Your task to perform on an android device: turn on sleep mode Image 0: 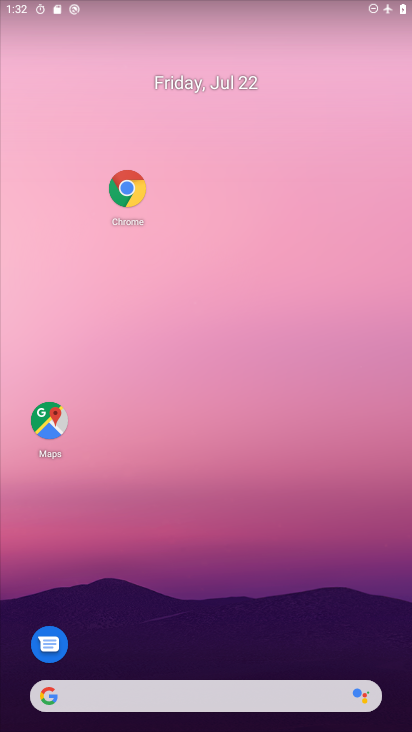
Step 0: drag from (156, 624) to (154, 85)
Your task to perform on an android device: turn on sleep mode Image 1: 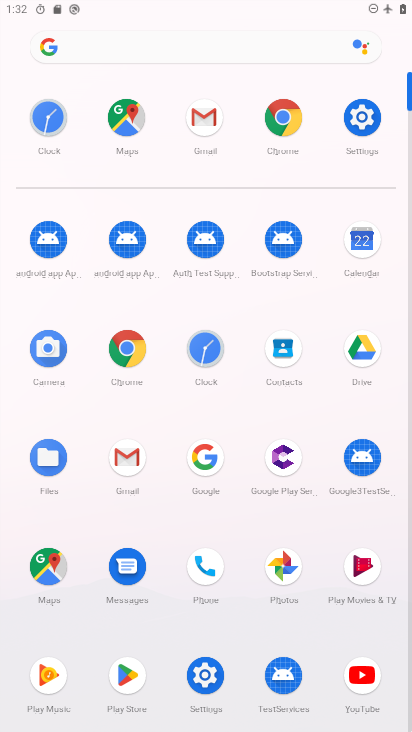
Step 1: click (364, 124)
Your task to perform on an android device: turn on sleep mode Image 2: 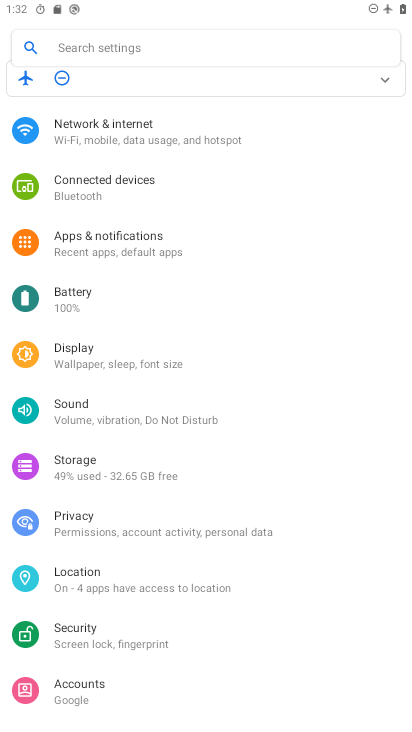
Step 2: task complete